Your task to perform on an android device: toggle notification dots Image 0: 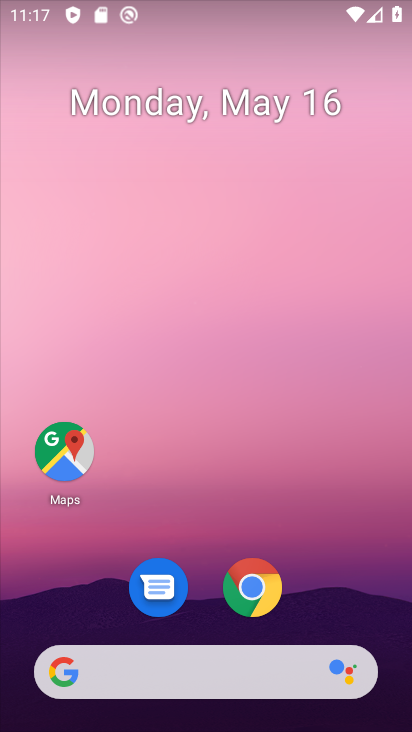
Step 0: drag from (390, 649) to (307, 48)
Your task to perform on an android device: toggle notification dots Image 1: 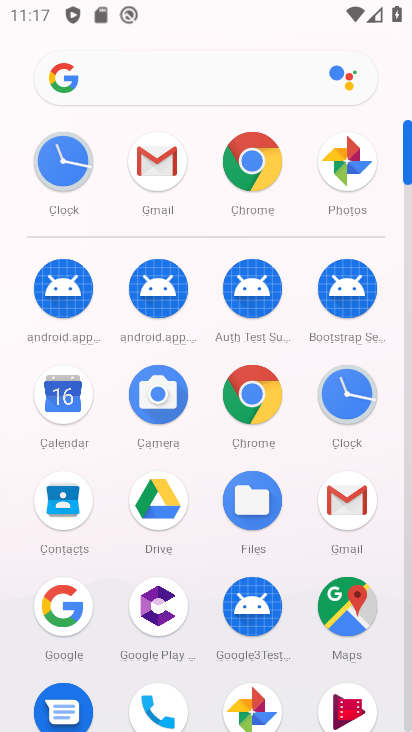
Step 1: drag from (212, 663) to (259, 95)
Your task to perform on an android device: toggle notification dots Image 2: 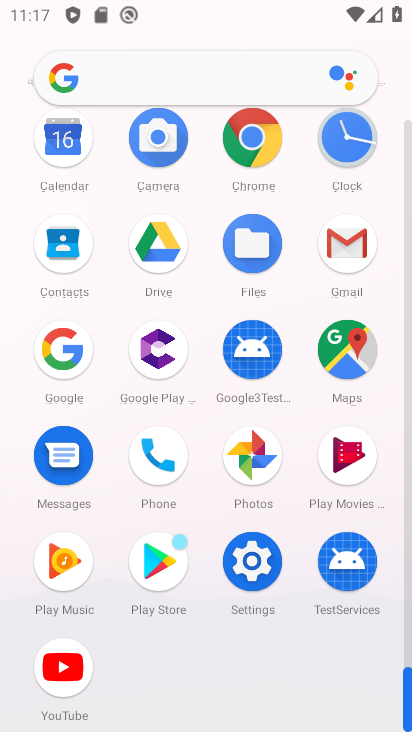
Step 2: click (240, 566)
Your task to perform on an android device: toggle notification dots Image 3: 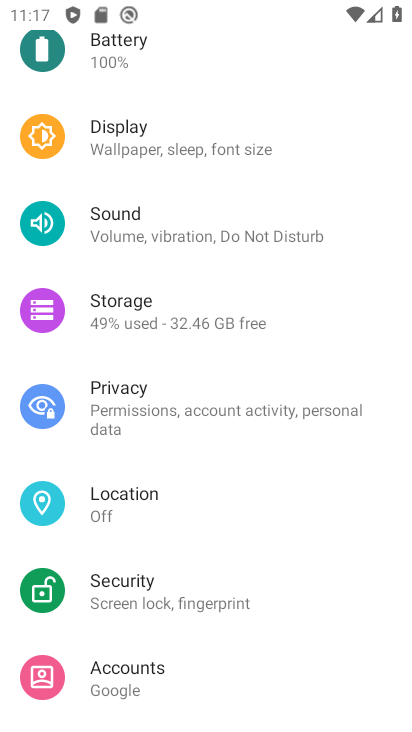
Step 3: drag from (243, 155) to (225, 621)
Your task to perform on an android device: toggle notification dots Image 4: 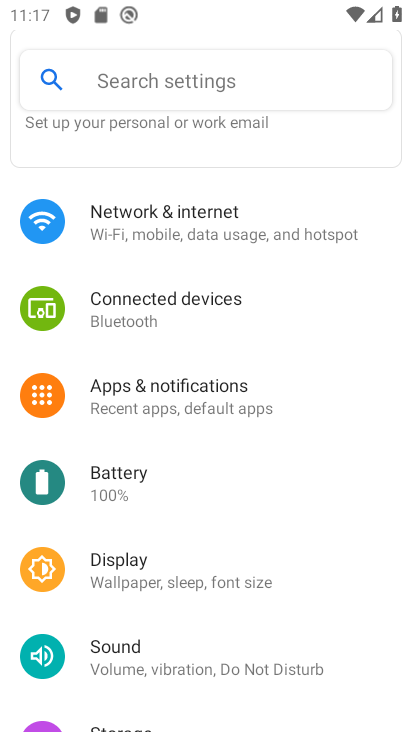
Step 4: click (215, 402)
Your task to perform on an android device: toggle notification dots Image 5: 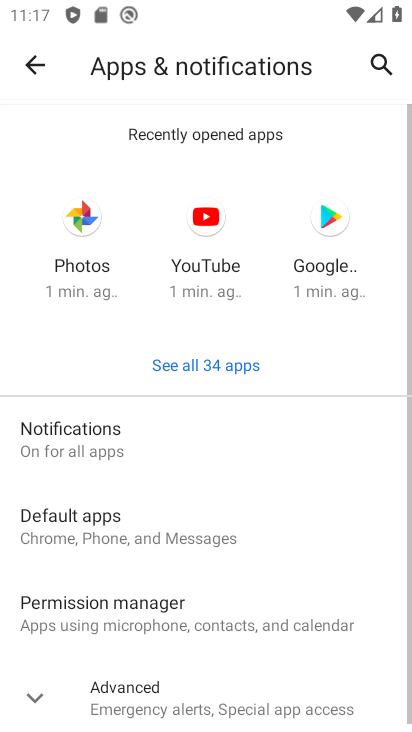
Step 5: click (144, 449)
Your task to perform on an android device: toggle notification dots Image 6: 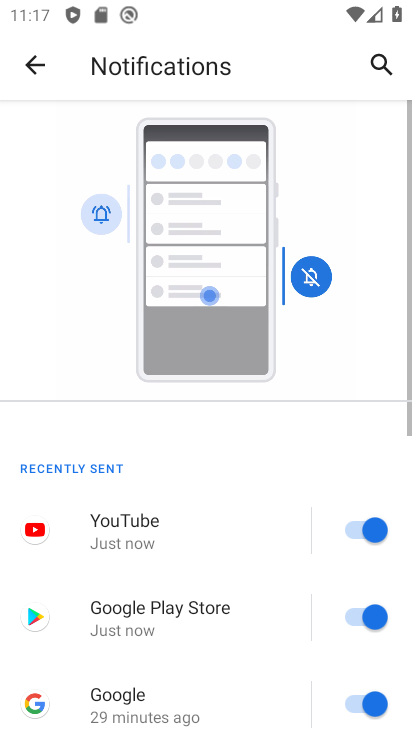
Step 6: drag from (159, 696) to (237, 193)
Your task to perform on an android device: toggle notification dots Image 7: 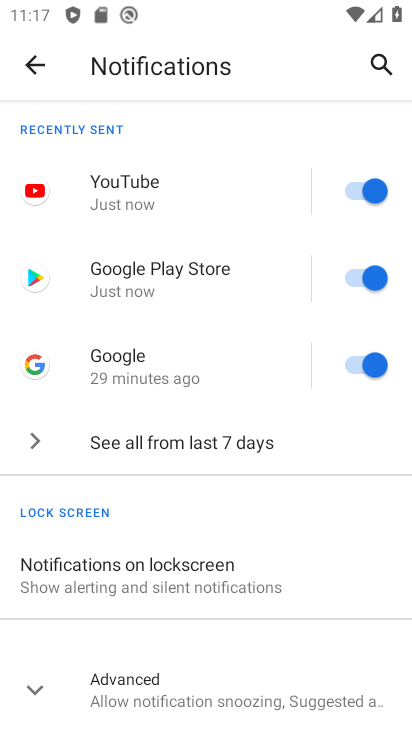
Step 7: click (154, 687)
Your task to perform on an android device: toggle notification dots Image 8: 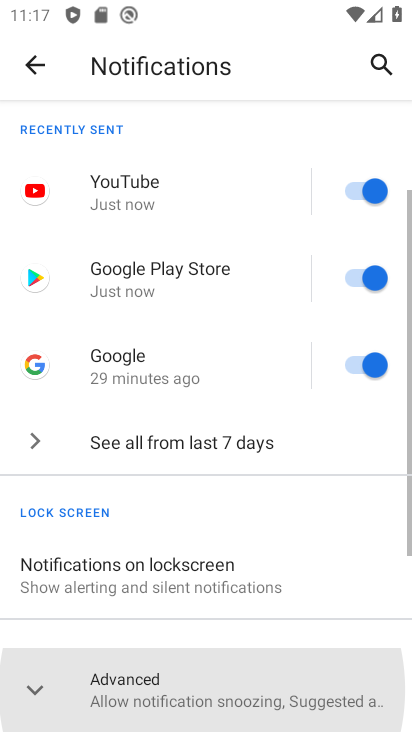
Step 8: drag from (154, 687) to (241, 251)
Your task to perform on an android device: toggle notification dots Image 9: 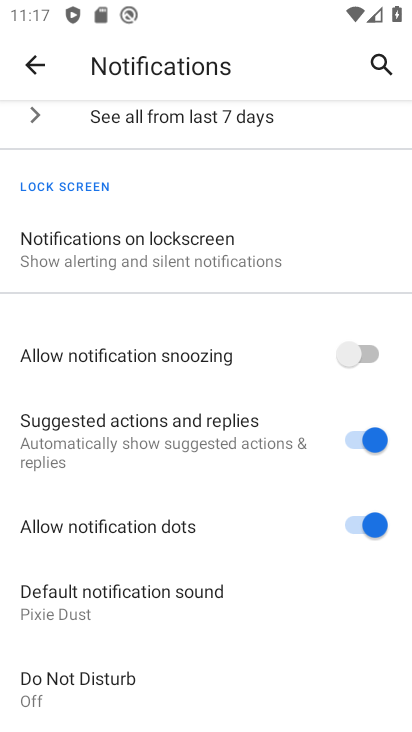
Step 9: click (294, 532)
Your task to perform on an android device: toggle notification dots Image 10: 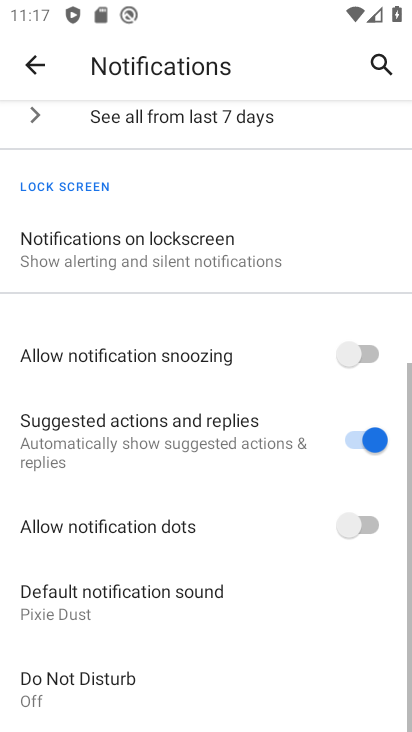
Step 10: task complete